Your task to perform on an android device: Open calendar and show me the first week of next month Image 0: 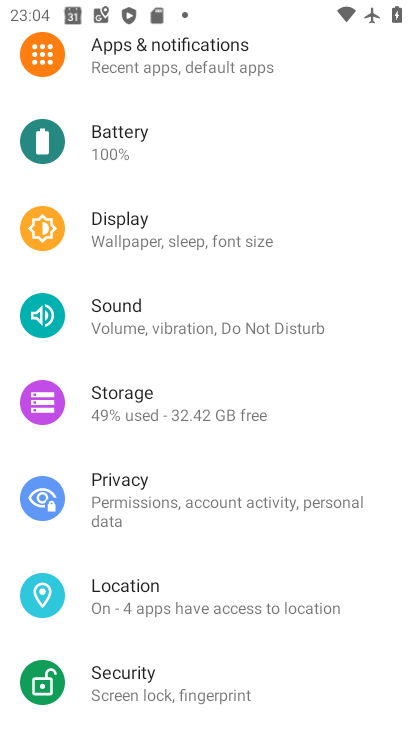
Step 0: press home button
Your task to perform on an android device: Open calendar and show me the first week of next month Image 1: 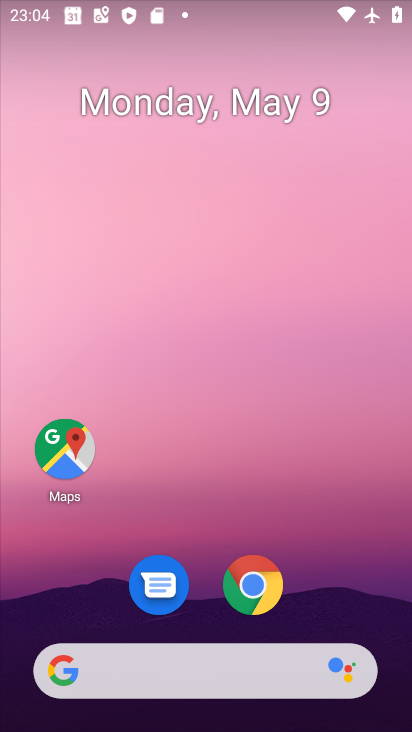
Step 1: drag from (263, 479) to (245, 18)
Your task to perform on an android device: Open calendar and show me the first week of next month Image 2: 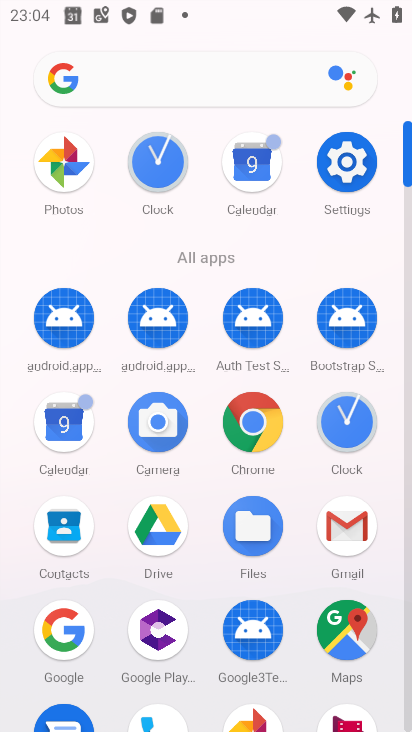
Step 2: click (247, 165)
Your task to perform on an android device: Open calendar and show me the first week of next month Image 3: 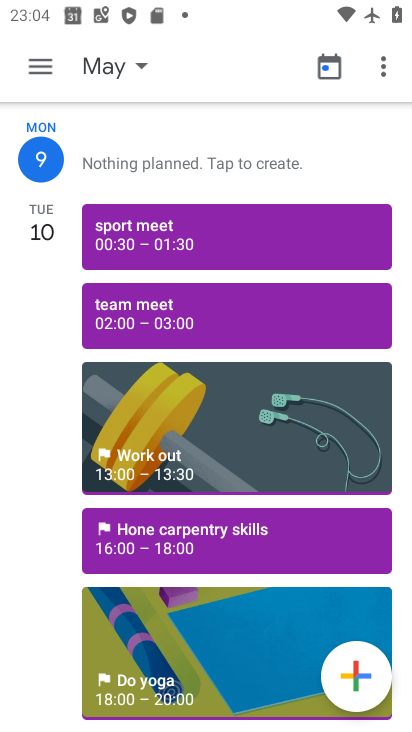
Step 3: click (39, 64)
Your task to perform on an android device: Open calendar and show me the first week of next month Image 4: 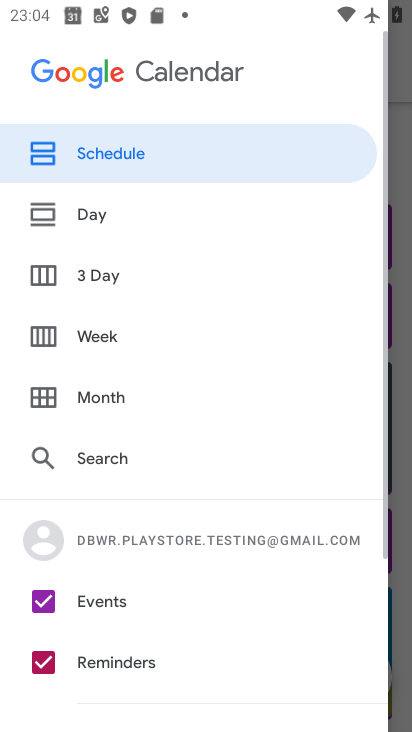
Step 4: click (65, 385)
Your task to perform on an android device: Open calendar and show me the first week of next month Image 5: 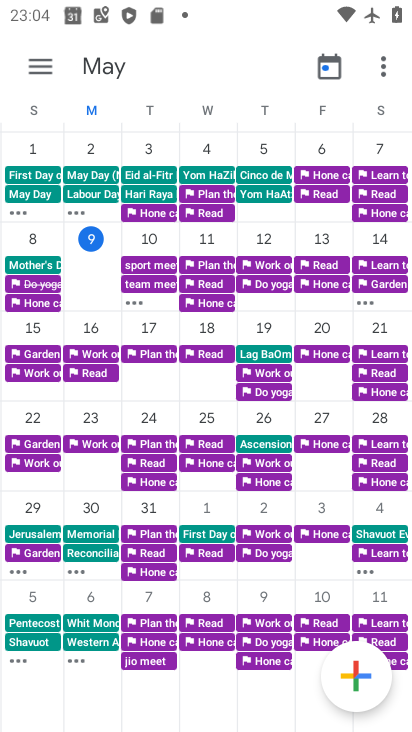
Step 5: drag from (377, 410) to (7, 386)
Your task to perform on an android device: Open calendar and show me the first week of next month Image 6: 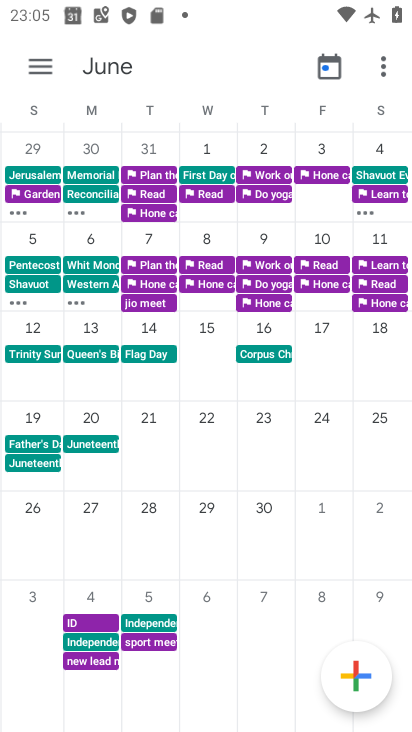
Step 6: click (29, 243)
Your task to perform on an android device: Open calendar and show me the first week of next month Image 7: 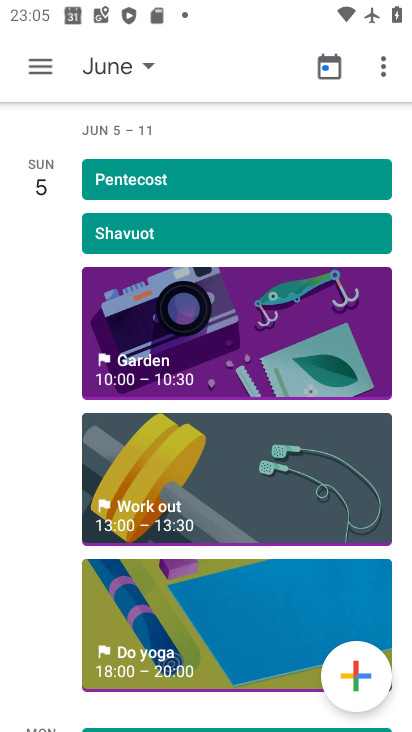
Step 7: click (36, 61)
Your task to perform on an android device: Open calendar and show me the first week of next month Image 8: 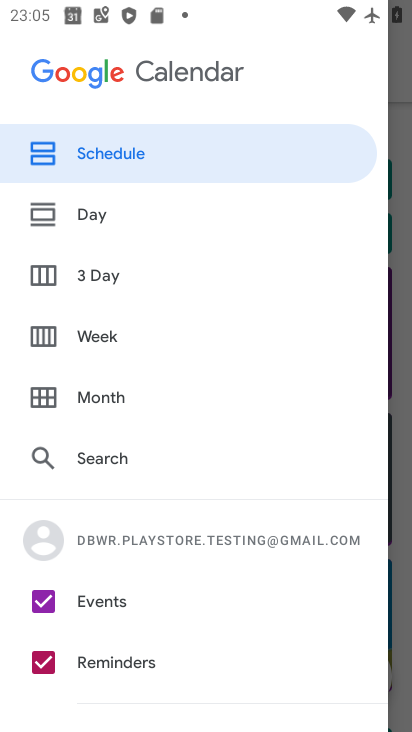
Step 8: click (69, 327)
Your task to perform on an android device: Open calendar and show me the first week of next month Image 9: 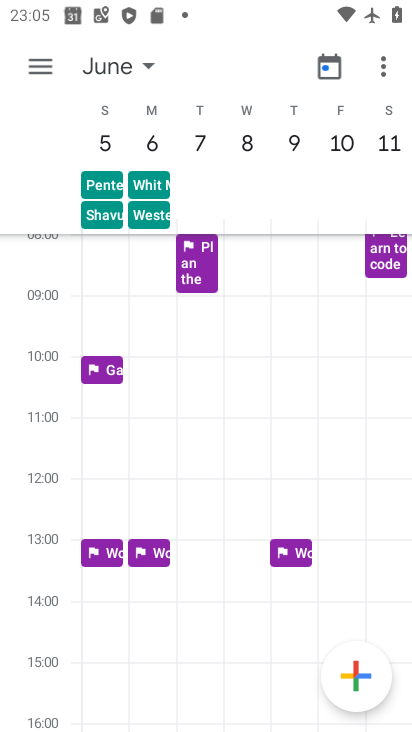
Step 9: task complete